Your task to perform on an android device: all mails in gmail Image 0: 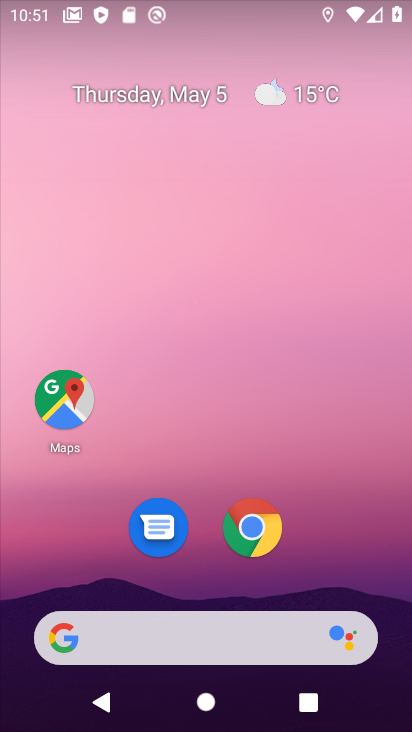
Step 0: drag from (201, 593) to (198, 159)
Your task to perform on an android device: all mails in gmail Image 1: 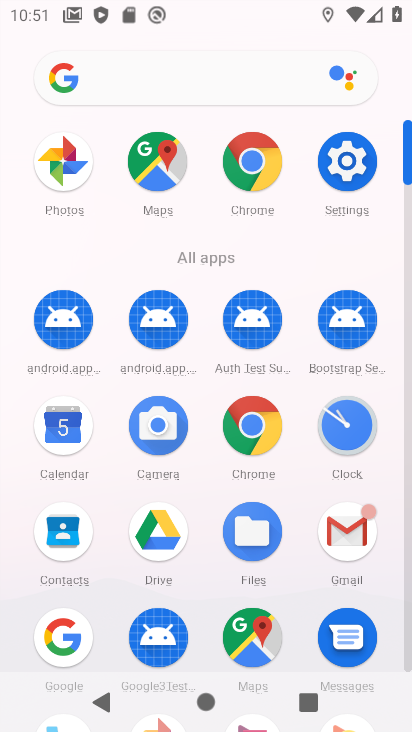
Step 1: click (339, 539)
Your task to perform on an android device: all mails in gmail Image 2: 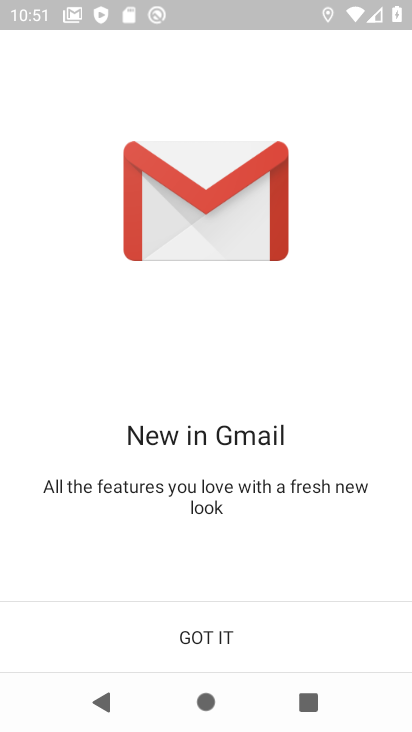
Step 2: click (270, 641)
Your task to perform on an android device: all mails in gmail Image 3: 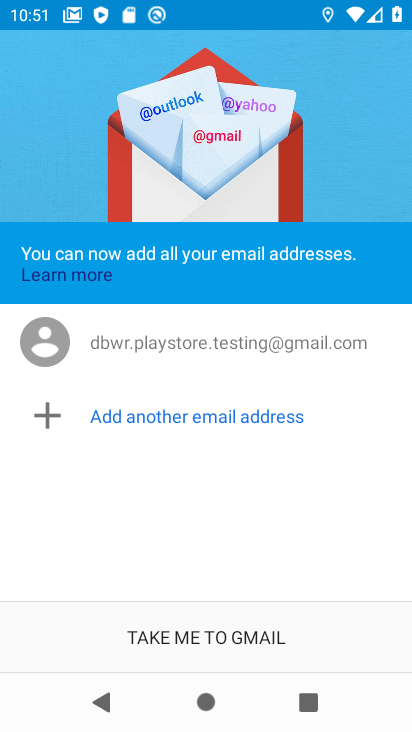
Step 3: click (269, 640)
Your task to perform on an android device: all mails in gmail Image 4: 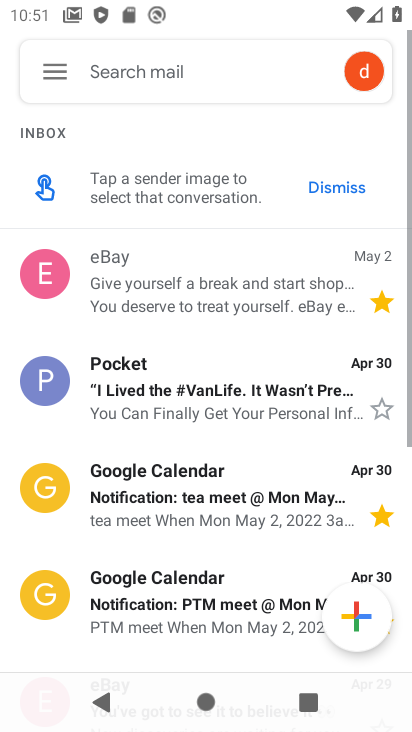
Step 4: click (56, 66)
Your task to perform on an android device: all mails in gmail Image 5: 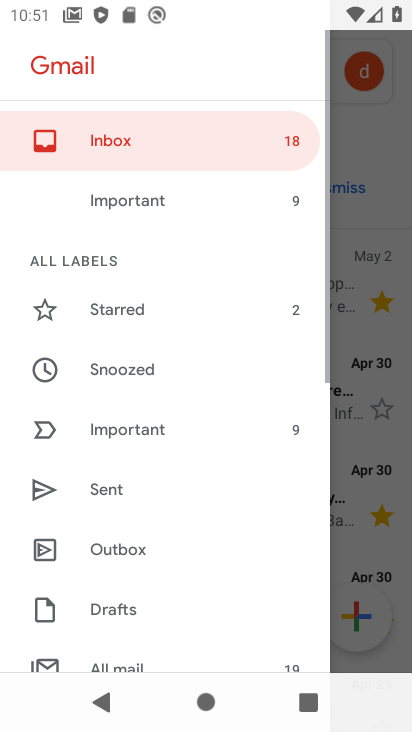
Step 5: drag from (133, 540) to (193, 273)
Your task to perform on an android device: all mails in gmail Image 6: 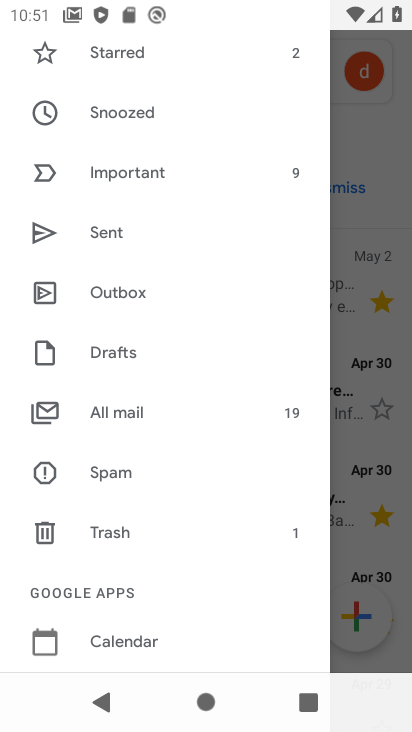
Step 6: click (148, 412)
Your task to perform on an android device: all mails in gmail Image 7: 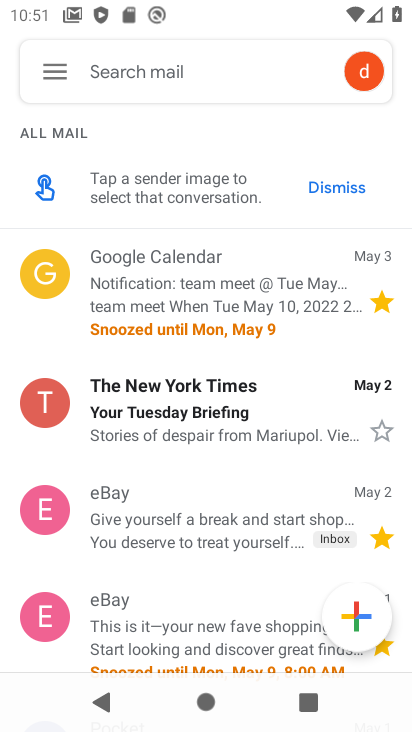
Step 7: task complete